Your task to perform on an android device: Open the calendar and show me this week's events Image 0: 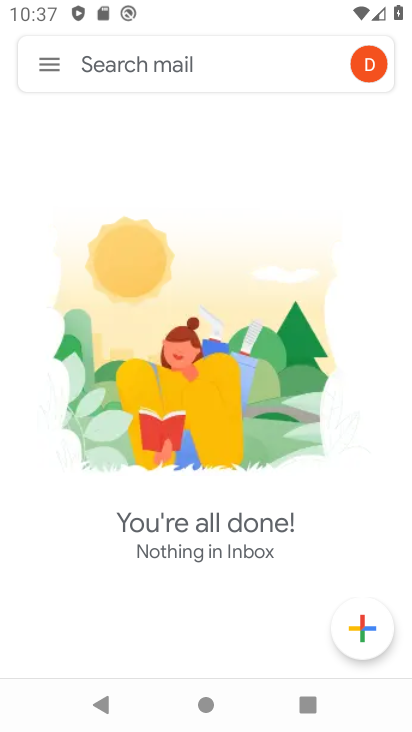
Step 0: press home button
Your task to perform on an android device: Open the calendar and show me this week's events Image 1: 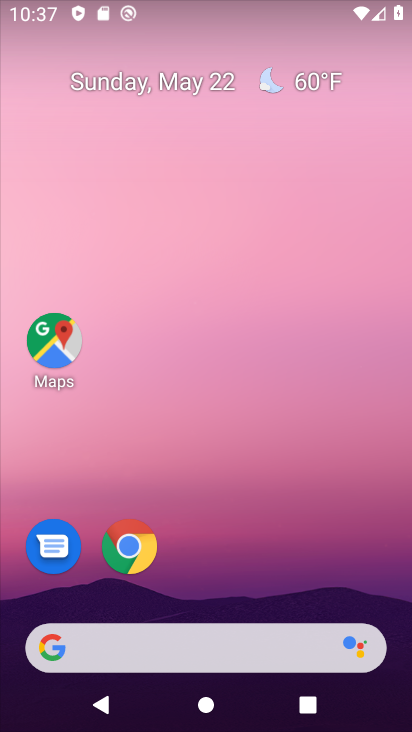
Step 1: drag from (223, 726) to (218, 176)
Your task to perform on an android device: Open the calendar and show me this week's events Image 2: 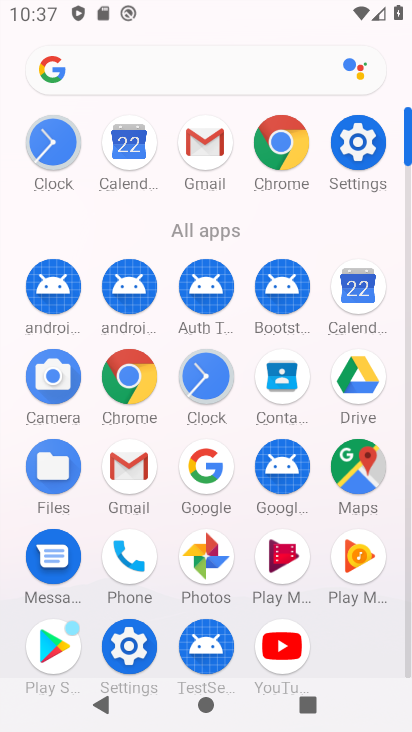
Step 2: click (361, 294)
Your task to perform on an android device: Open the calendar and show me this week's events Image 3: 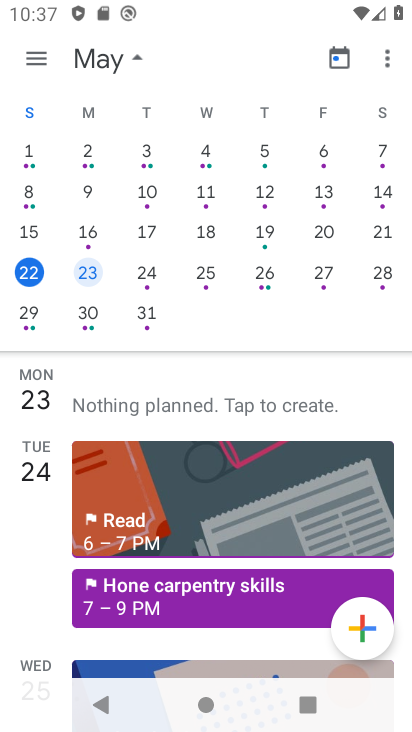
Step 3: click (40, 59)
Your task to perform on an android device: Open the calendar and show me this week's events Image 4: 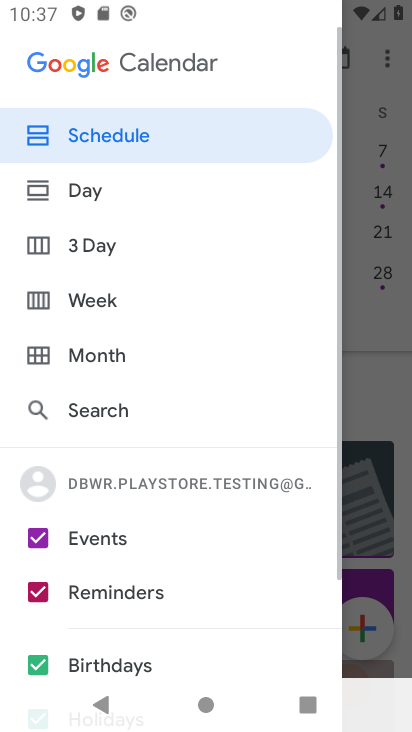
Step 4: click (98, 300)
Your task to perform on an android device: Open the calendar and show me this week's events Image 5: 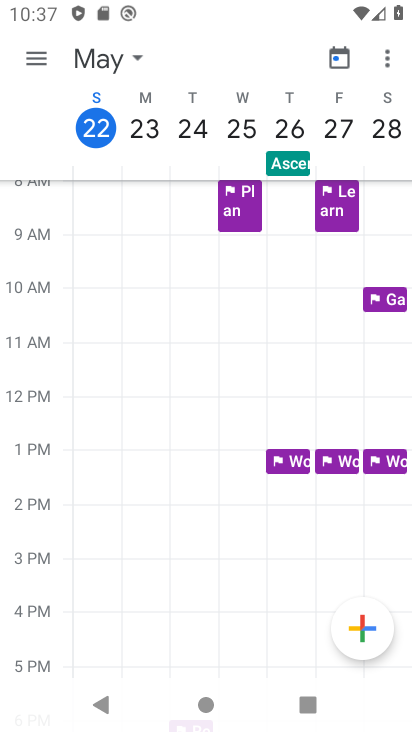
Step 5: task complete